Your task to perform on an android device: Open the calendar app, open the side menu, and click the "Day" option Image 0: 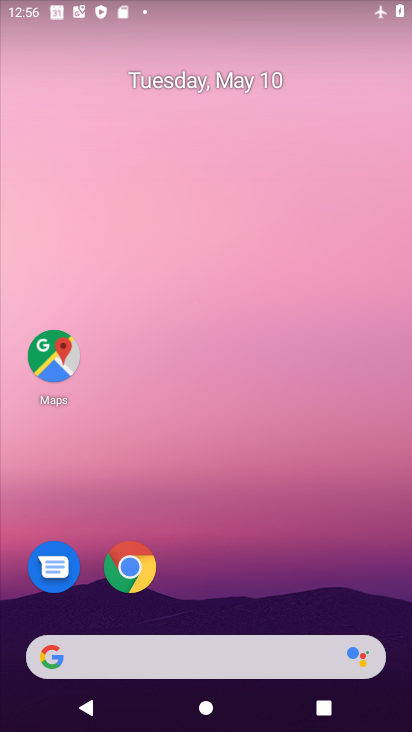
Step 0: drag from (372, 604) to (285, 73)
Your task to perform on an android device: Open the calendar app, open the side menu, and click the "Day" option Image 1: 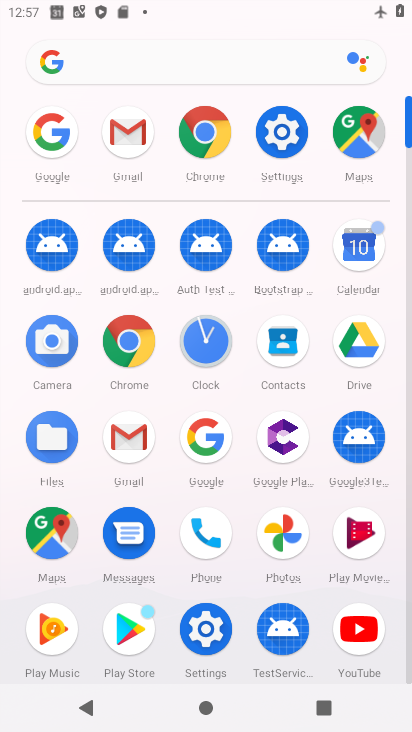
Step 1: click (364, 259)
Your task to perform on an android device: Open the calendar app, open the side menu, and click the "Day" option Image 2: 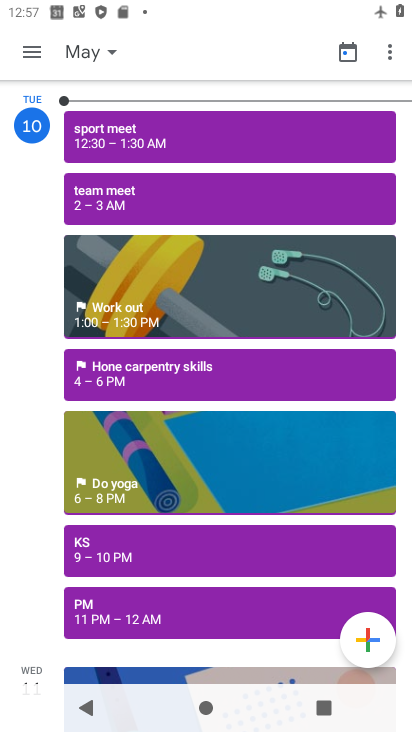
Step 2: click (34, 65)
Your task to perform on an android device: Open the calendar app, open the side menu, and click the "Day" option Image 3: 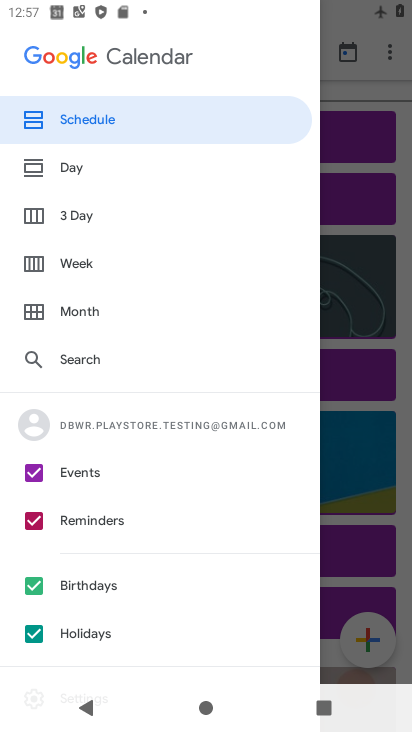
Step 3: click (100, 167)
Your task to perform on an android device: Open the calendar app, open the side menu, and click the "Day" option Image 4: 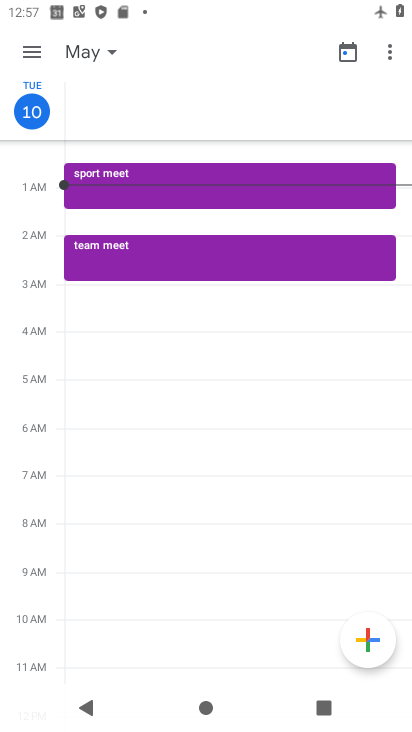
Step 4: task complete